Your task to perform on an android device: snooze an email in the gmail app Image 0: 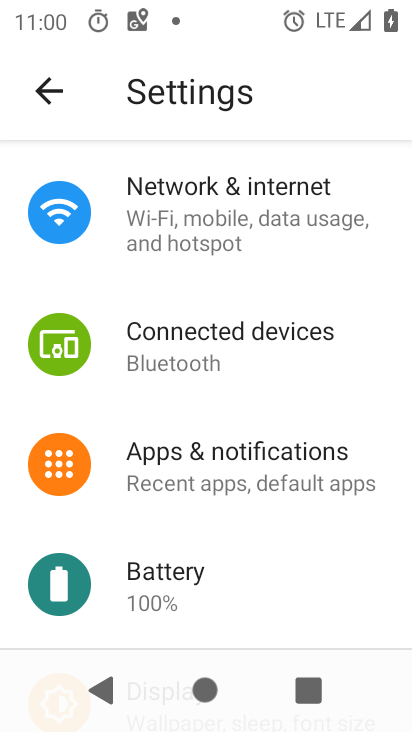
Step 0: press home button
Your task to perform on an android device: snooze an email in the gmail app Image 1: 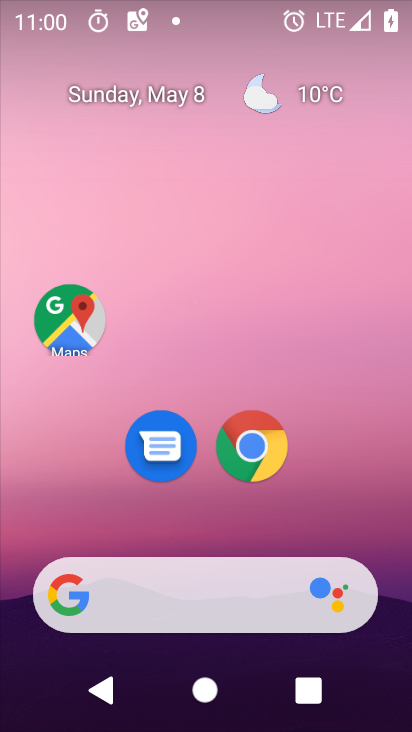
Step 1: drag from (380, 548) to (411, 31)
Your task to perform on an android device: snooze an email in the gmail app Image 2: 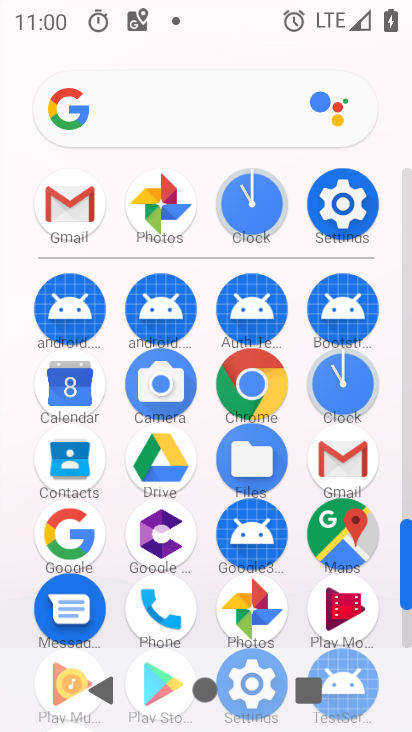
Step 2: click (64, 216)
Your task to perform on an android device: snooze an email in the gmail app Image 3: 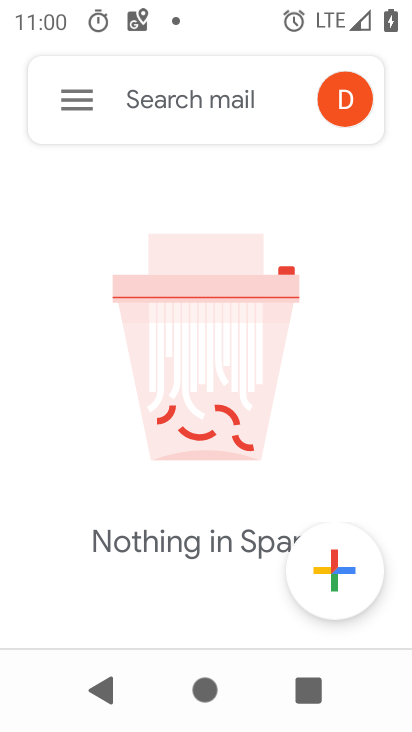
Step 3: click (88, 109)
Your task to perform on an android device: snooze an email in the gmail app Image 4: 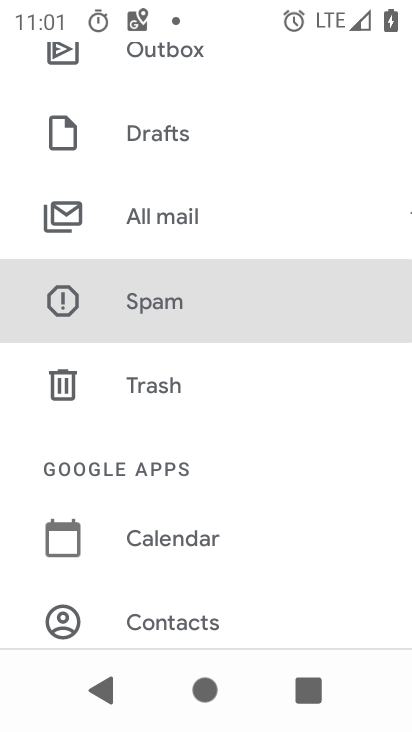
Step 4: click (172, 225)
Your task to perform on an android device: snooze an email in the gmail app Image 5: 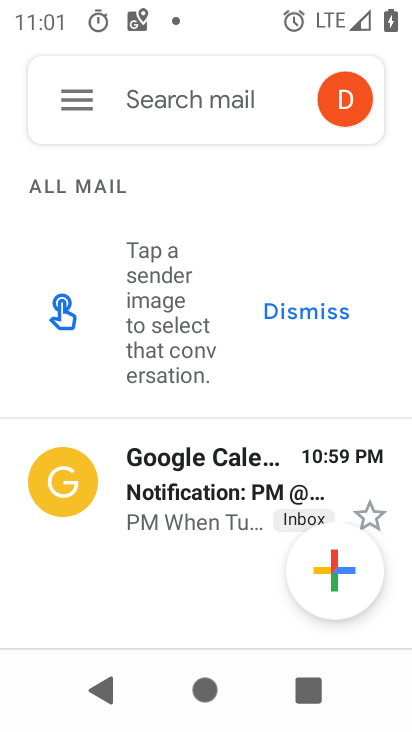
Step 5: click (184, 495)
Your task to perform on an android device: snooze an email in the gmail app Image 6: 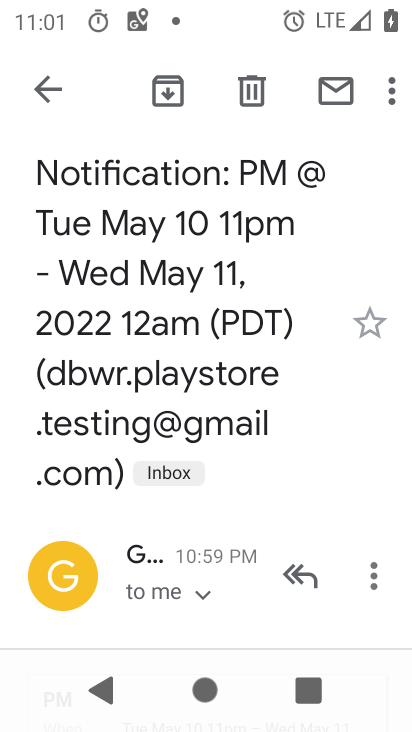
Step 6: click (388, 90)
Your task to perform on an android device: snooze an email in the gmail app Image 7: 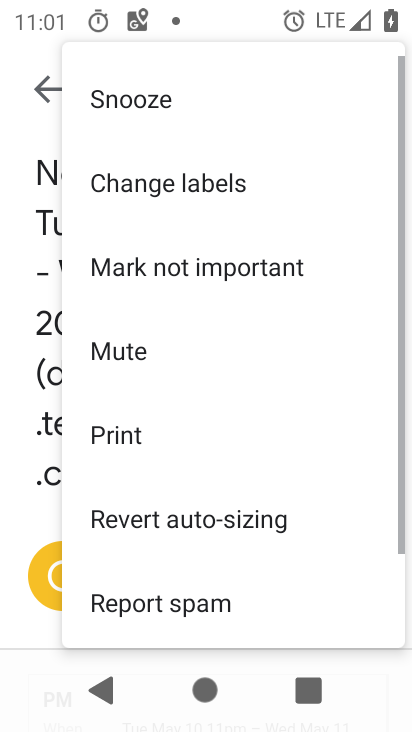
Step 7: click (137, 105)
Your task to perform on an android device: snooze an email in the gmail app Image 8: 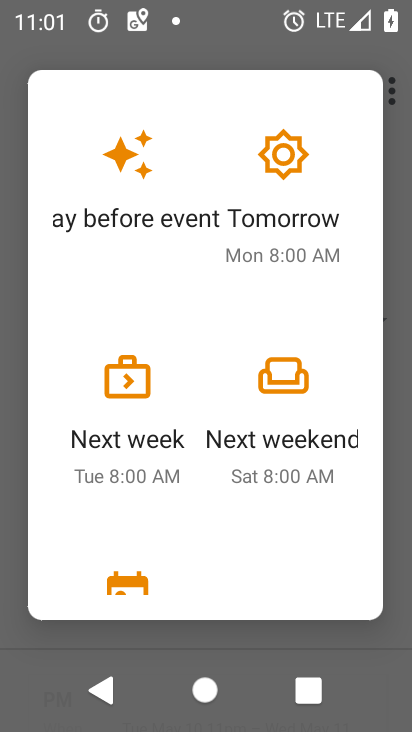
Step 8: click (253, 237)
Your task to perform on an android device: snooze an email in the gmail app Image 9: 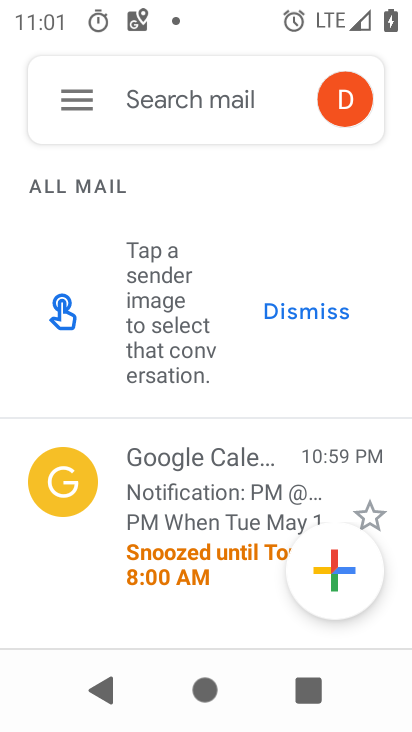
Step 9: task complete